Your task to perform on an android device: Open Google Maps and go to "Timeline" Image 0: 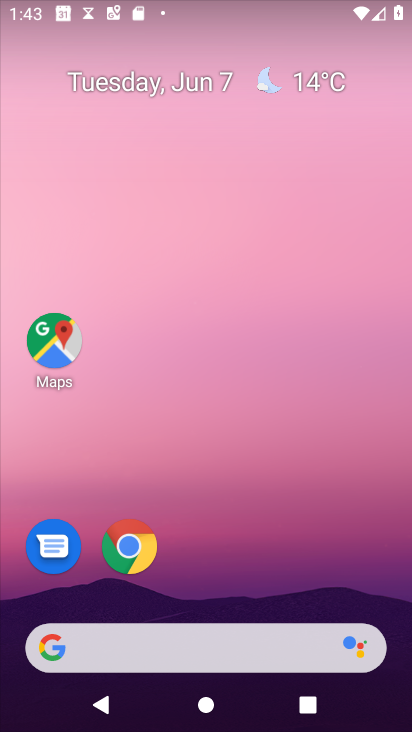
Step 0: click (55, 335)
Your task to perform on an android device: Open Google Maps and go to "Timeline" Image 1: 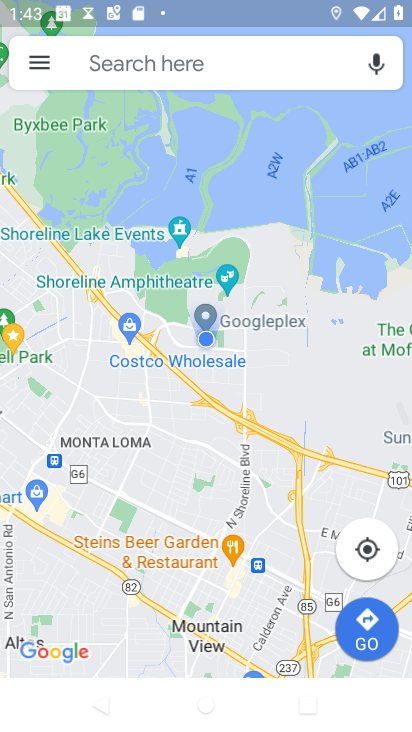
Step 1: click (50, 62)
Your task to perform on an android device: Open Google Maps and go to "Timeline" Image 2: 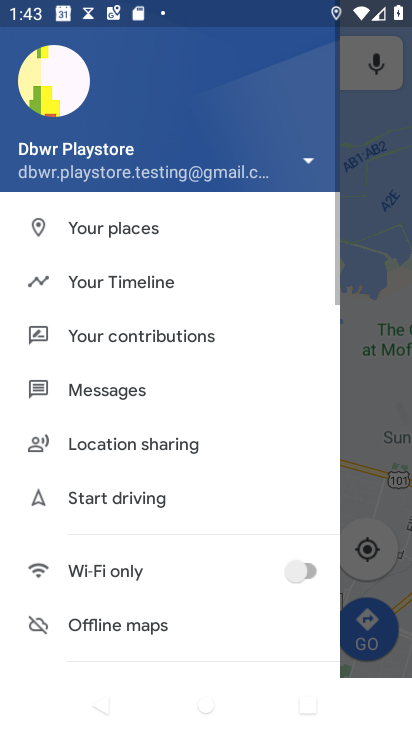
Step 2: click (143, 281)
Your task to perform on an android device: Open Google Maps and go to "Timeline" Image 3: 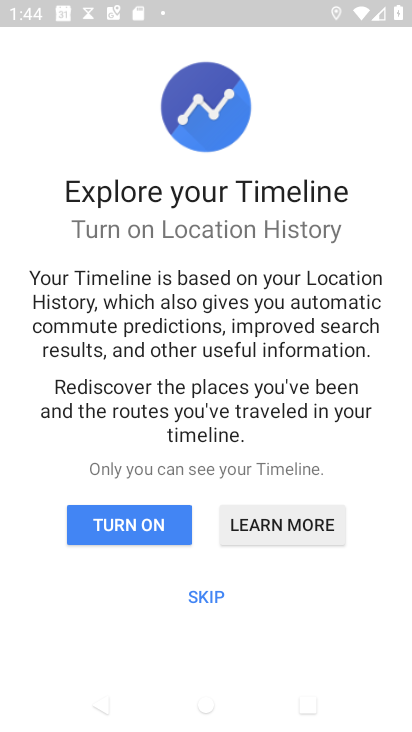
Step 3: click (153, 519)
Your task to perform on an android device: Open Google Maps and go to "Timeline" Image 4: 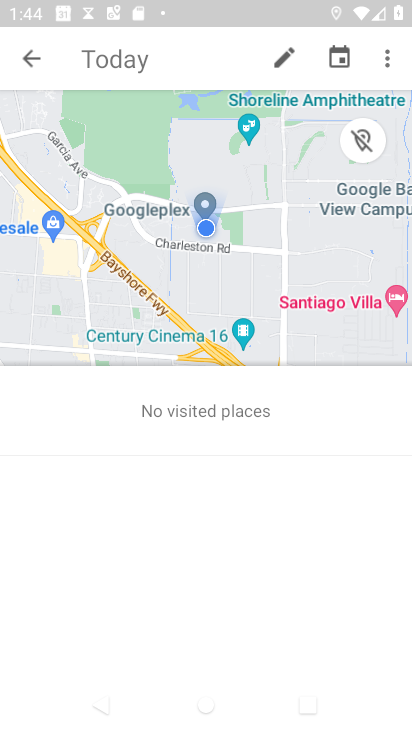
Step 4: task complete